Your task to perform on an android device: open sync settings in chrome Image 0: 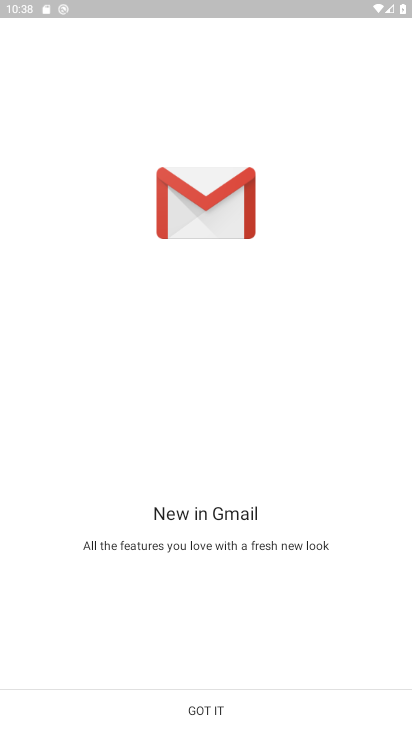
Step 0: press home button
Your task to perform on an android device: open sync settings in chrome Image 1: 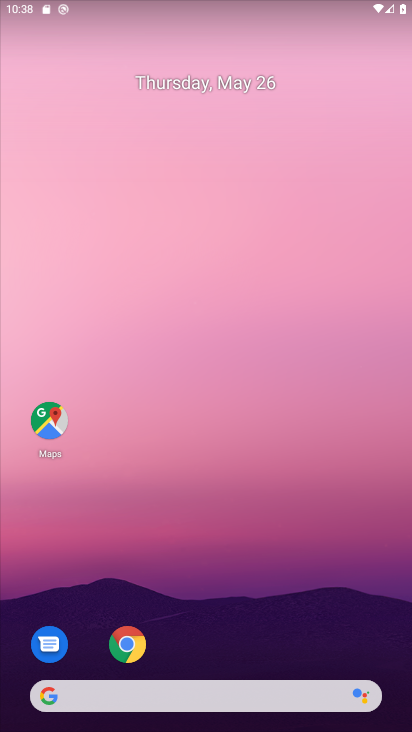
Step 1: drag from (357, 650) to (358, 280)
Your task to perform on an android device: open sync settings in chrome Image 2: 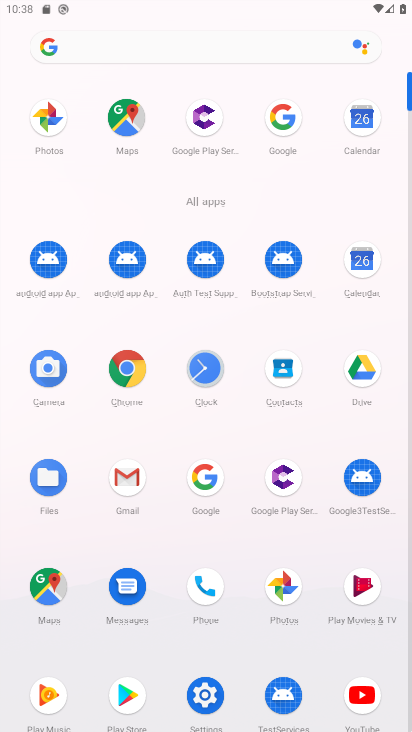
Step 2: click (133, 392)
Your task to perform on an android device: open sync settings in chrome Image 3: 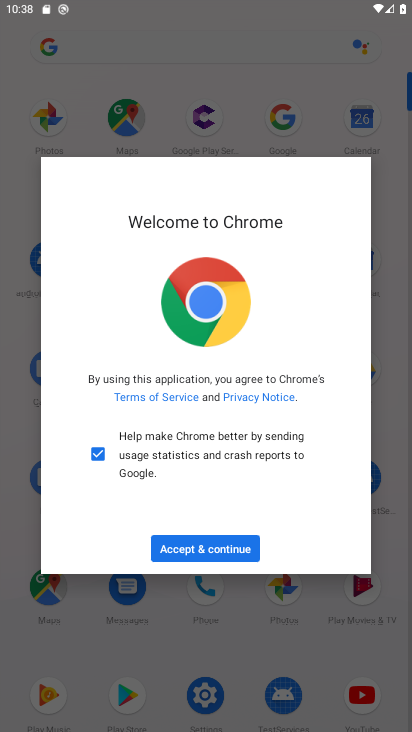
Step 3: click (221, 550)
Your task to perform on an android device: open sync settings in chrome Image 4: 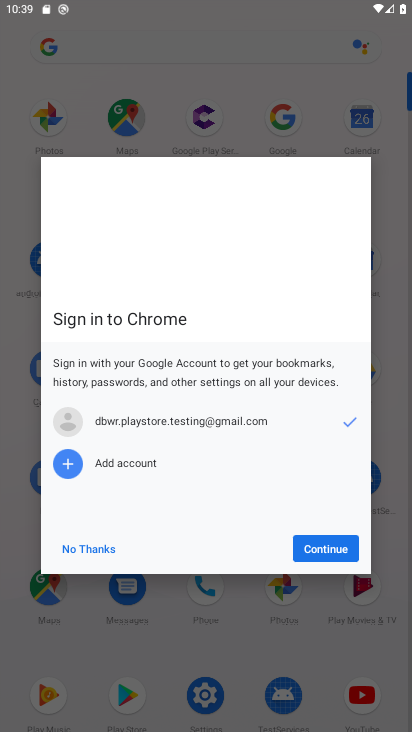
Step 4: click (310, 555)
Your task to perform on an android device: open sync settings in chrome Image 5: 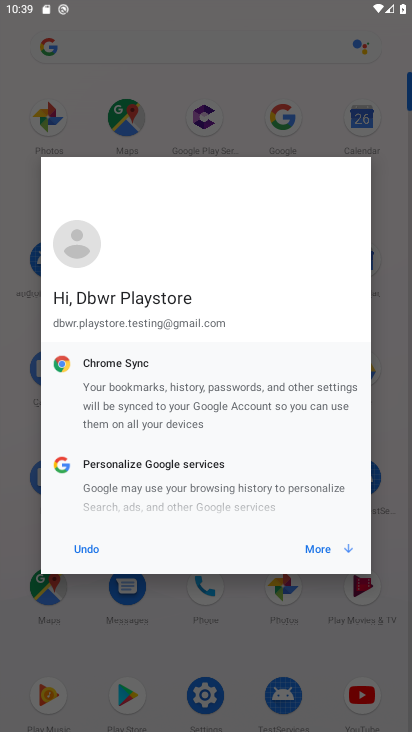
Step 5: click (310, 555)
Your task to perform on an android device: open sync settings in chrome Image 6: 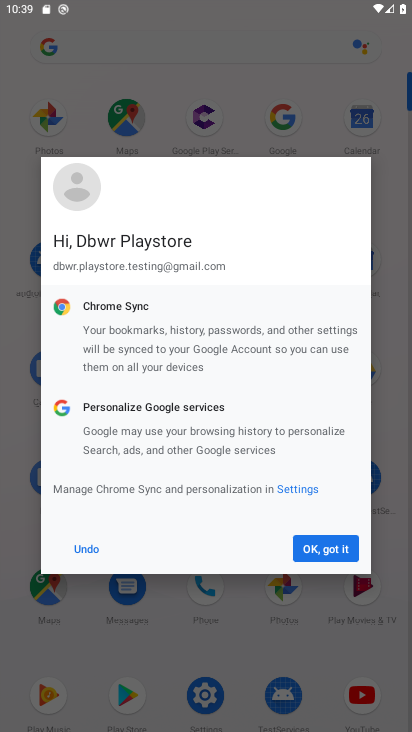
Step 6: click (310, 555)
Your task to perform on an android device: open sync settings in chrome Image 7: 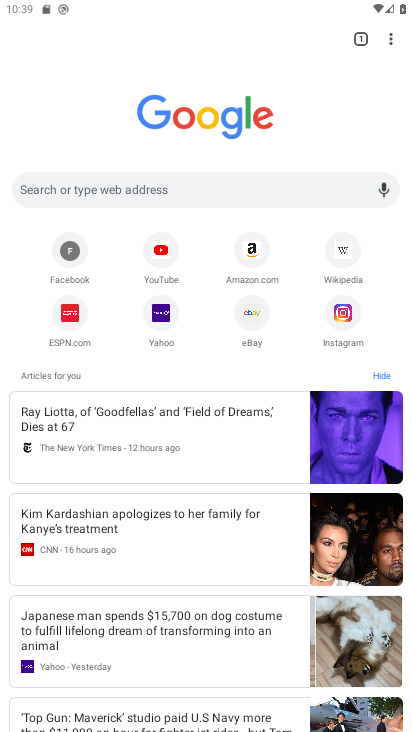
Step 7: click (390, 46)
Your task to perform on an android device: open sync settings in chrome Image 8: 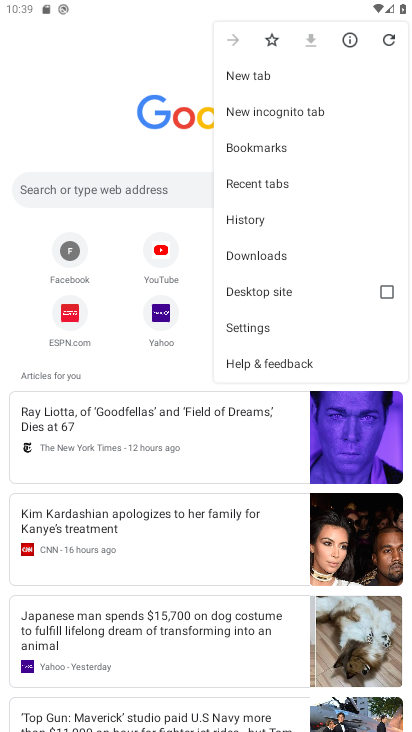
Step 8: click (252, 326)
Your task to perform on an android device: open sync settings in chrome Image 9: 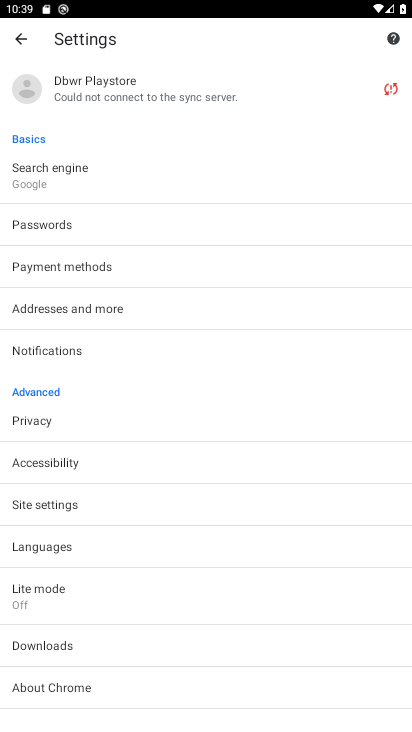
Step 9: click (298, 501)
Your task to perform on an android device: open sync settings in chrome Image 10: 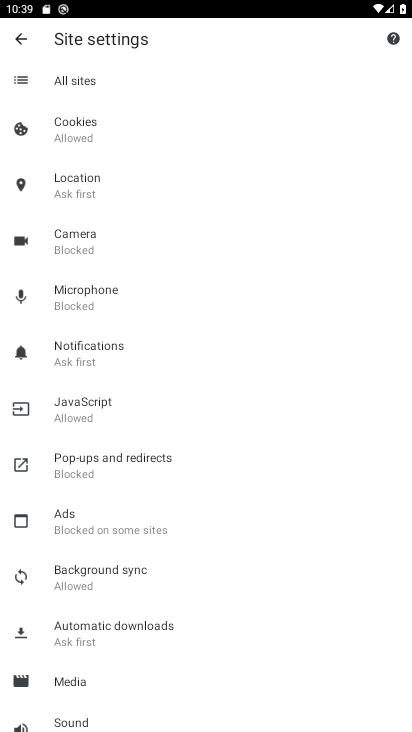
Step 10: click (235, 569)
Your task to perform on an android device: open sync settings in chrome Image 11: 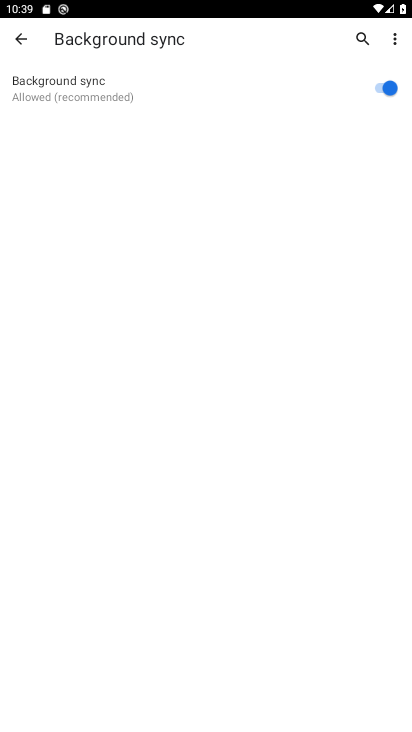
Step 11: task complete